Your task to perform on an android device: Check the weather Image 0: 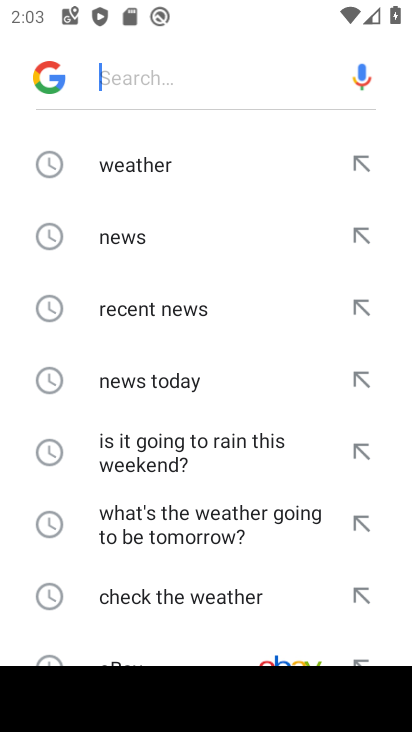
Step 0: type "weather"
Your task to perform on an android device: Check the weather Image 1: 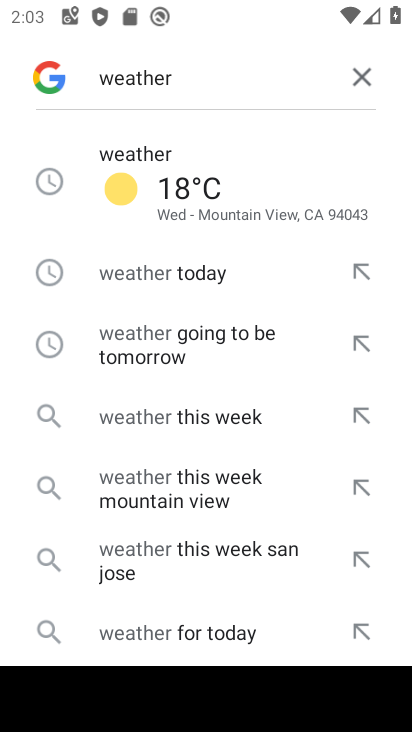
Step 1: click (175, 208)
Your task to perform on an android device: Check the weather Image 2: 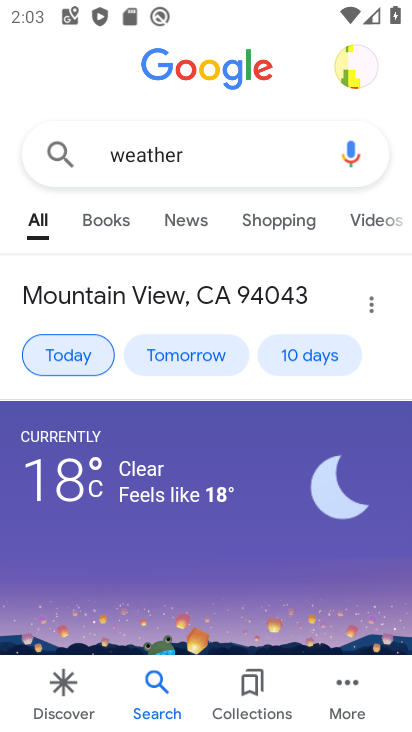
Step 2: task complete